Your task to perform on an android device: turn off wifi Image 0: 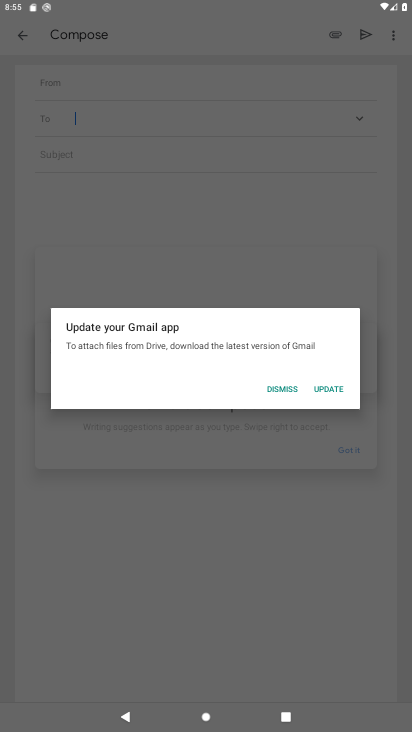
Step 0: press home button
Your task to perform on an android device: turn off wifi Image 1: 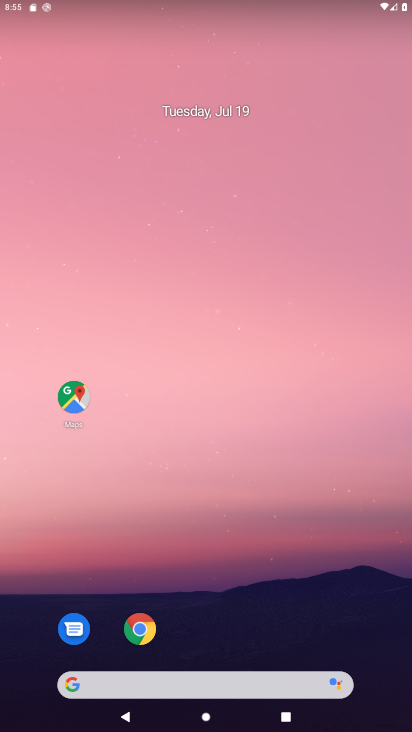
Step 1: drag from (213, 666) to (312, 4)
Your task to perform on an android device: turn off wifi Image 2: 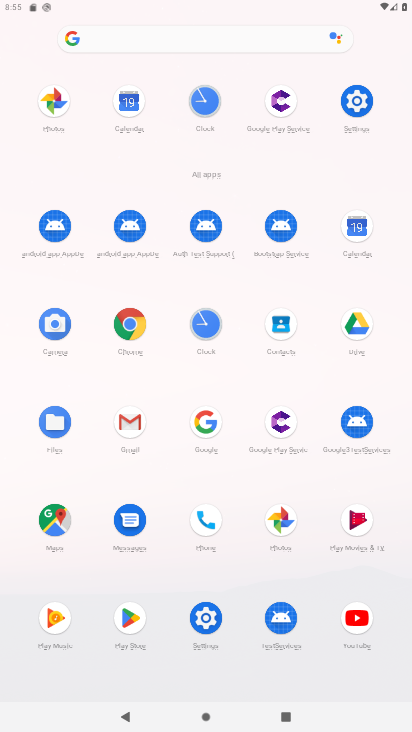
Step 2: click (347, 86)
Your task to perform on an android device: turn off wifi Image 3: 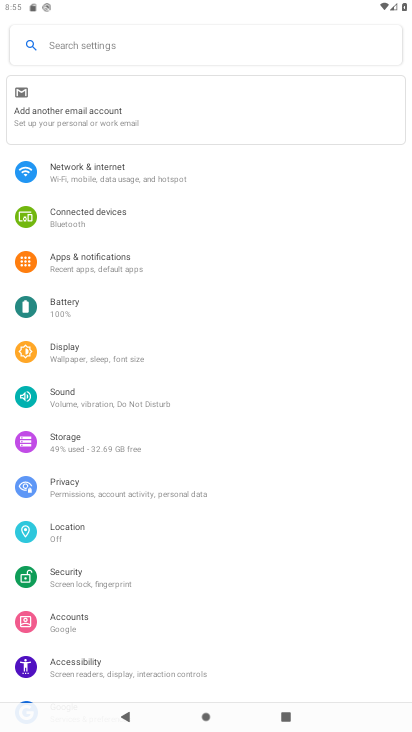
Step 3: click (52, 167)
Your task to perform on an android device: turn off wifi Image 4: 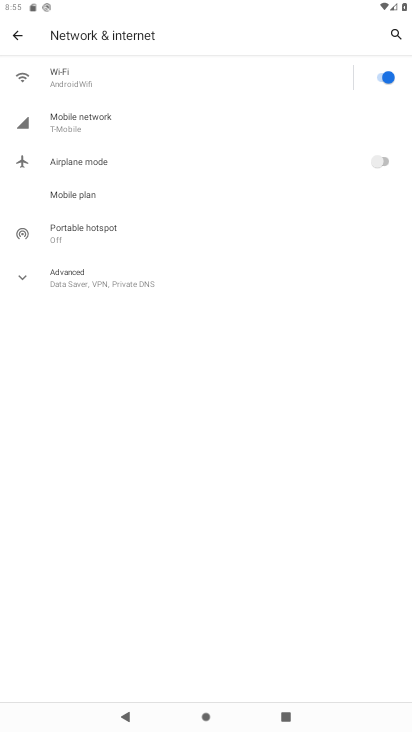
Step 4: click (371, 82)
Your task to perform on an android device: turn off wifi Image 5: 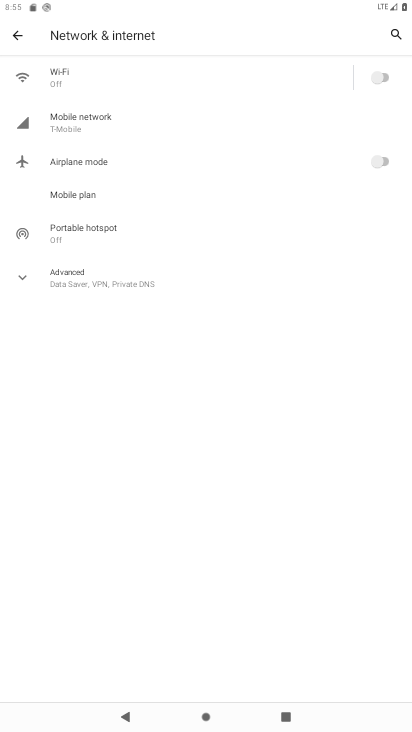
Step 5: task complete